Your task to perform on an android device: What is the recent news? Image 0: 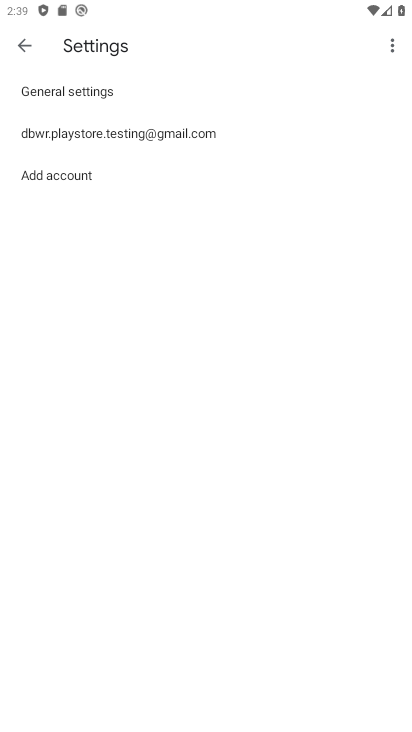
Step 0: press home button
Your task to perform on an android device: What is the recent news? Image 1: 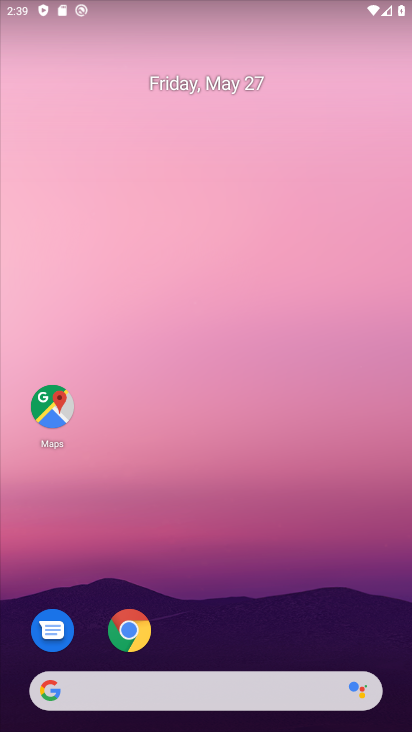
Step 1: drag from (200, 643) to (238, 60)
Your task to perform on an android device: What is the recent news? Image 2: 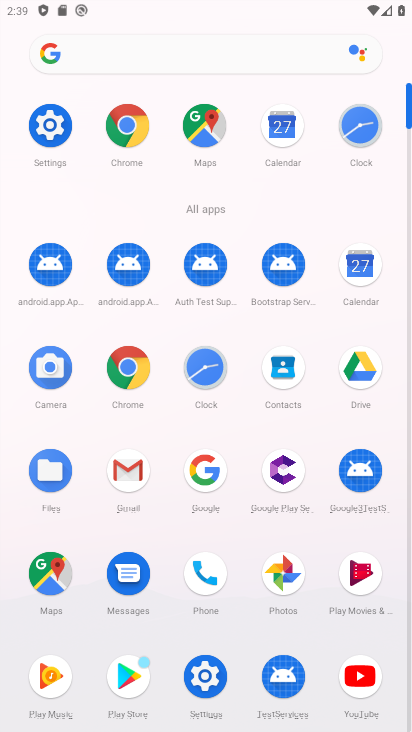
Step 2: click (218, 482)
Your task to perform on an android device: What is the recent news? Image 3: 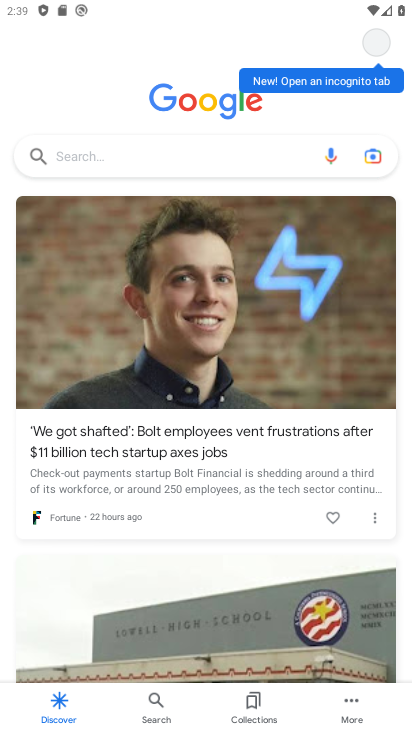
Step 3: click (200, 152)
Your task to perform on an android device: What is the recent news? Image 4: 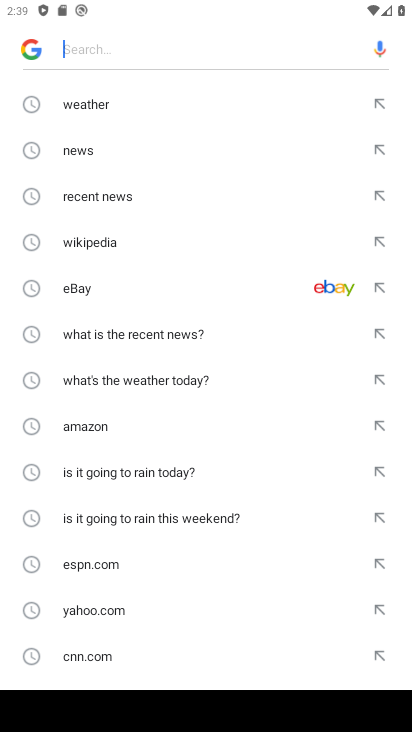
Step 4: click (112, 188)
Your task to perform on an android device: What is the recent news? Image 5: 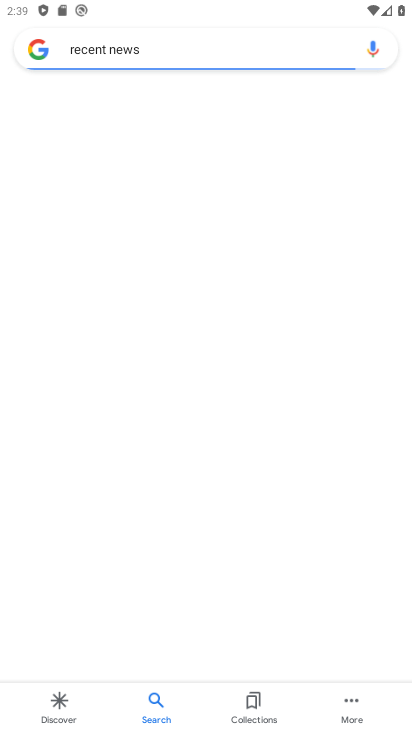
Step 5: task complete